Your task to perform on an android device: manage bookmarks in the chrome app Image 0: 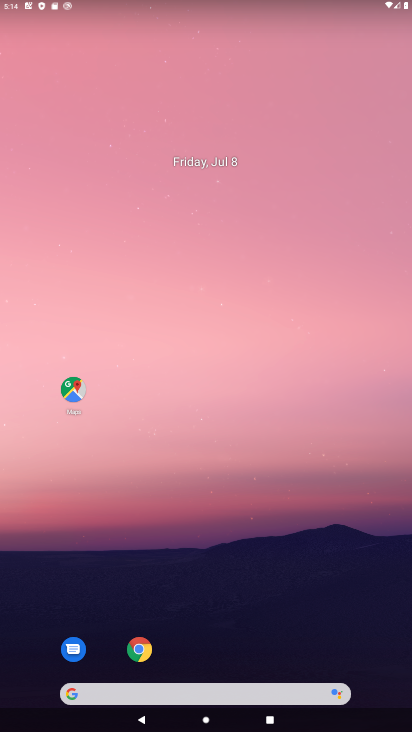
Step 0: drag from (253, 529) to (364, 7)
Your task to perform on an android device: manage bookmarks in the chrome app Image 1: 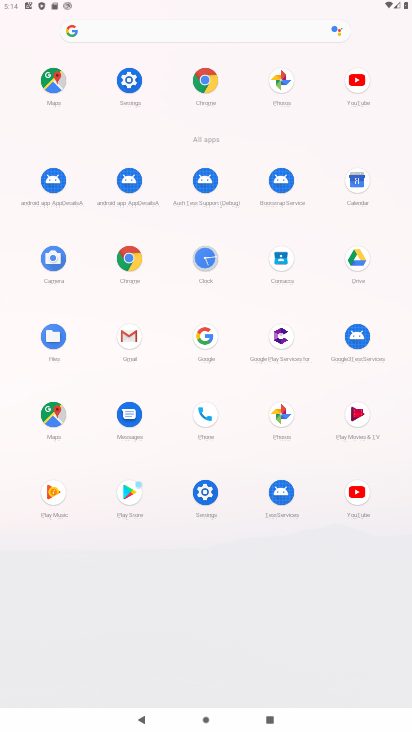
Step 1: click (127, 258)
Your task to perform on an android device: manage bookmarks in the chrome app Image 2: 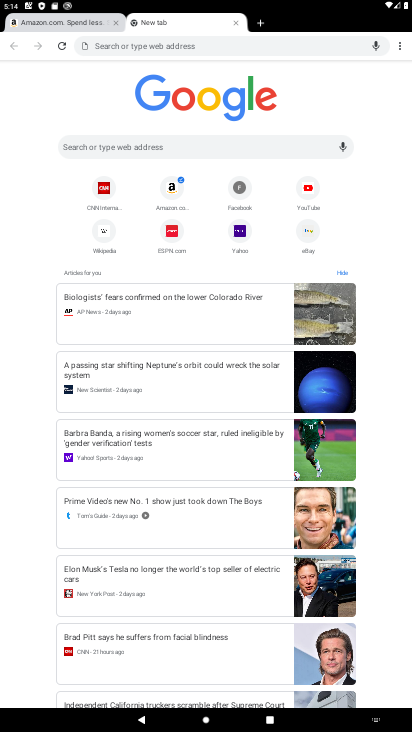
Step 2: drag from (400, 42) to (323, 99)
Your task to perform on an android device: manage bookmarks in the chrome app Image 3: 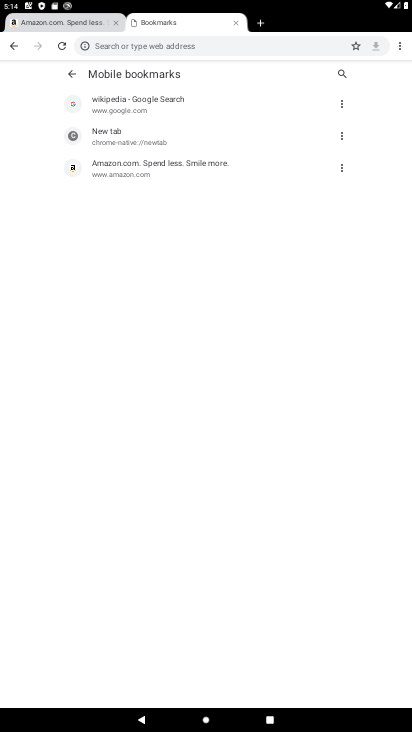
Step 3: click (339, 102)
Your task to perform on an android device: manage bookmarks in the chrome app Image 4: 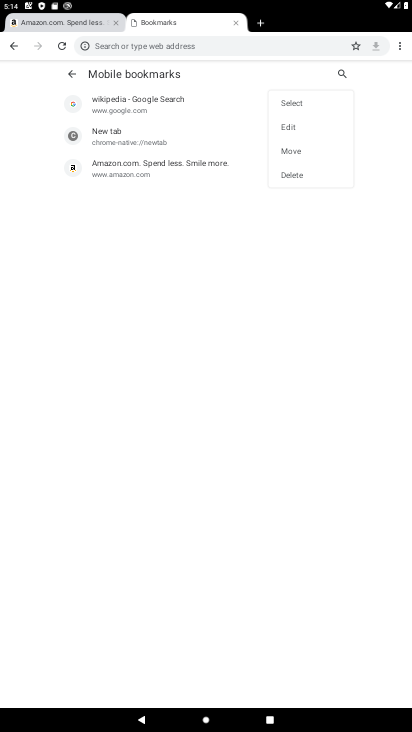
Step 4: click (297, 174)
Your task to perform on an android device: manage bookmarks in the chrome app Image 5: 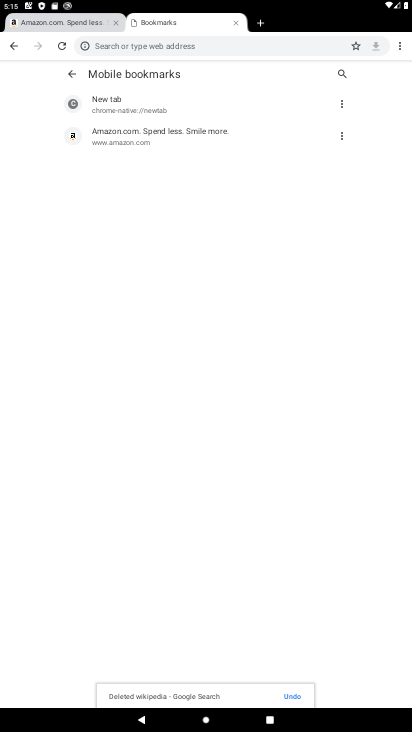
Step 5: task complete